Your task to perform on an android device: check android version Image 0: 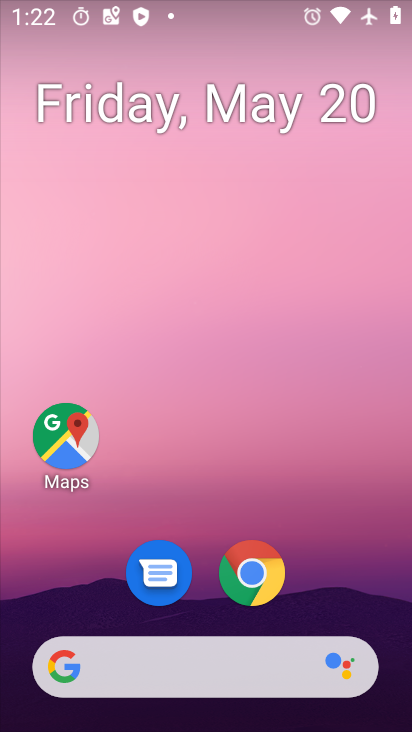
Step 0: drag from (319, 571) to (319, 111)
Your task to perform on an android device: check android version Image 1: 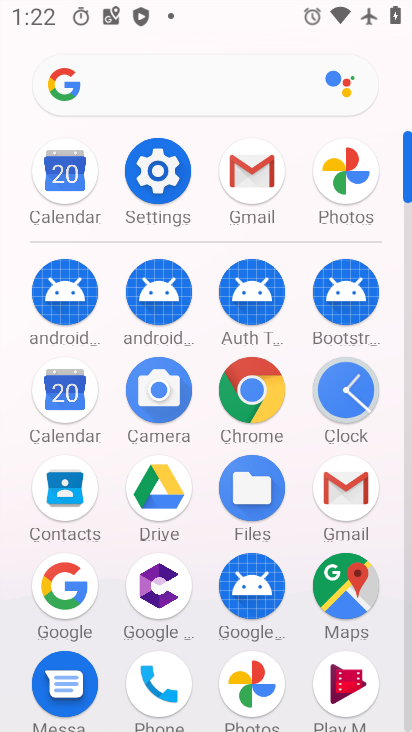
Step 1: click (144, 161)
Your task to perform on an android device: check android version Image 2: 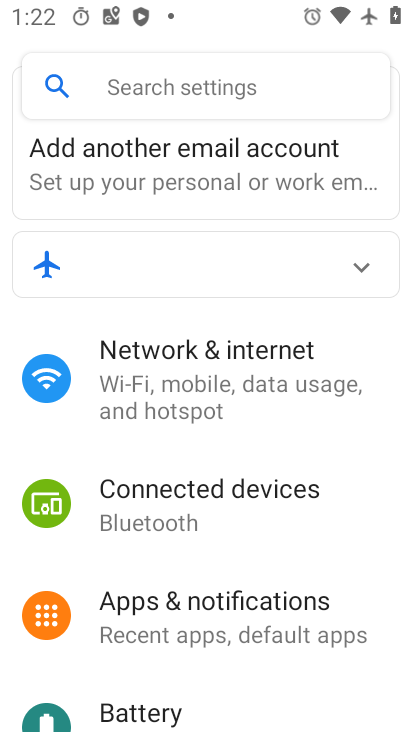
Step 2: drag from (255, 623) to (275, 29)
Your task to perform on an android device: check android version Image 3: 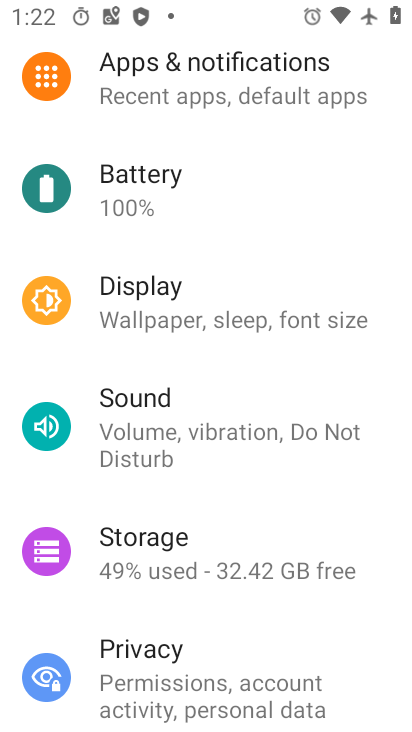
Step 3: drag from (245, 596) to (237, 29)
Your task to perform on an android device: check android version Image 4: 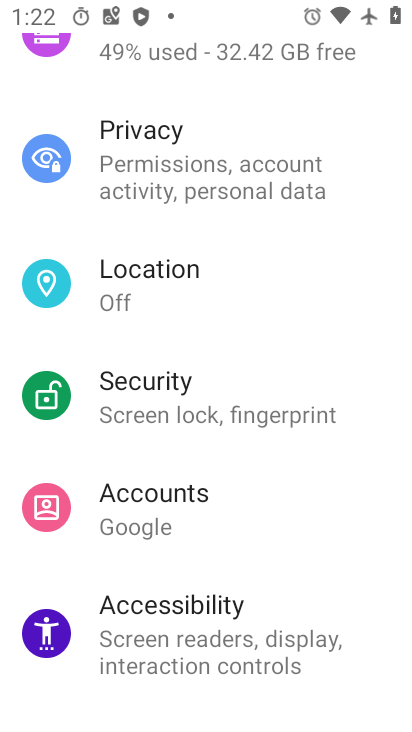
Step 4: drag from (208, 621) to (207, 120)
Your task to perform on an android device: check android version Image 5: 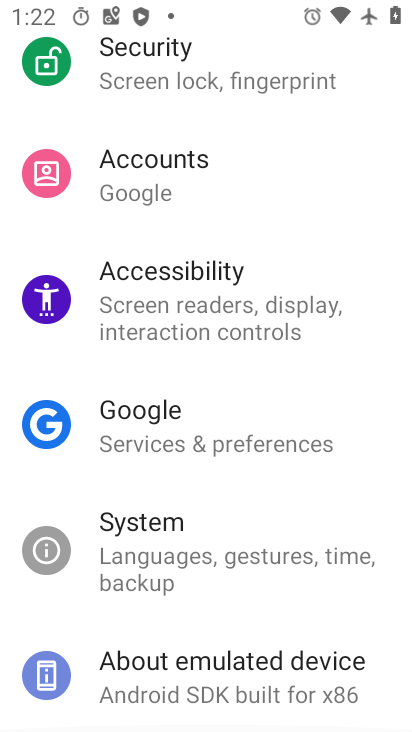
Step 5: click (185, 691)
Your task to perform on an android device: check android version Image 6: 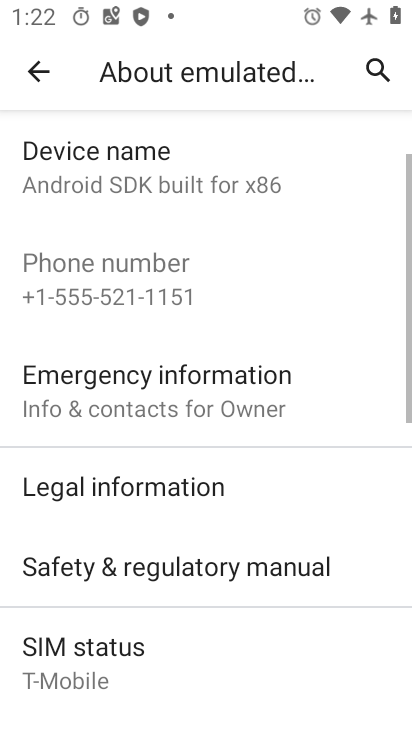
Step 6: drag from (194, 598) to (192, 307)
Your task to perform on an android device: check android version Image 7: 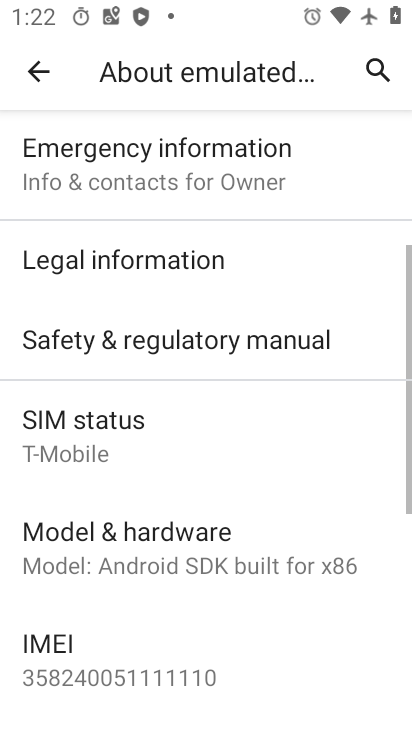
Step 7: drag from (174, 658) to (186, 286)
Your task to perform on an android device: check android version Image 8: 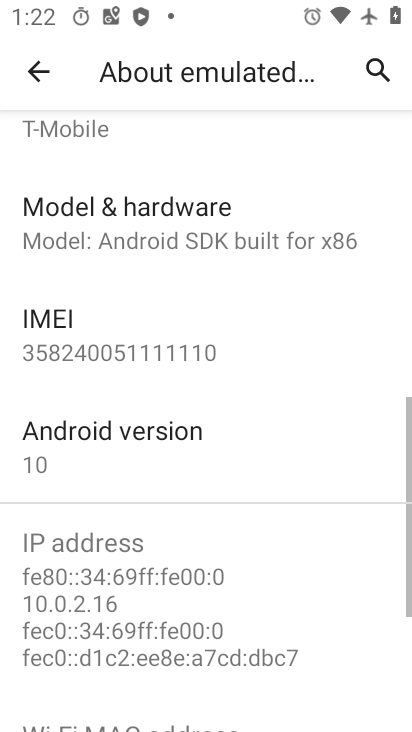
Step 8: click (136, 454)
Your task to perform on an android device: check android version Image 9: 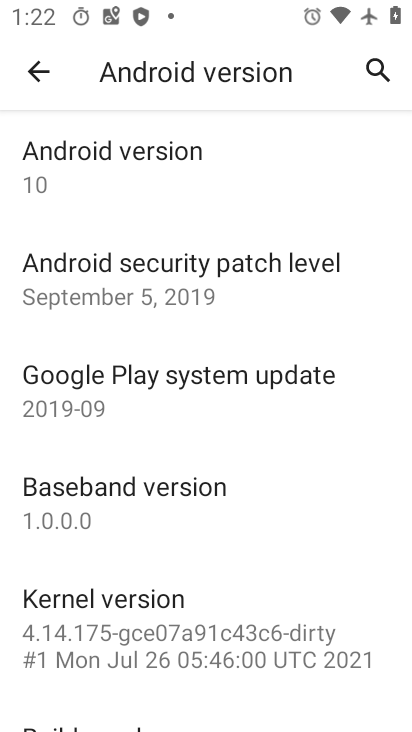
Step 9: task complete